Your task to perform on an android device: turn off javascript in the chrome app Image 0: 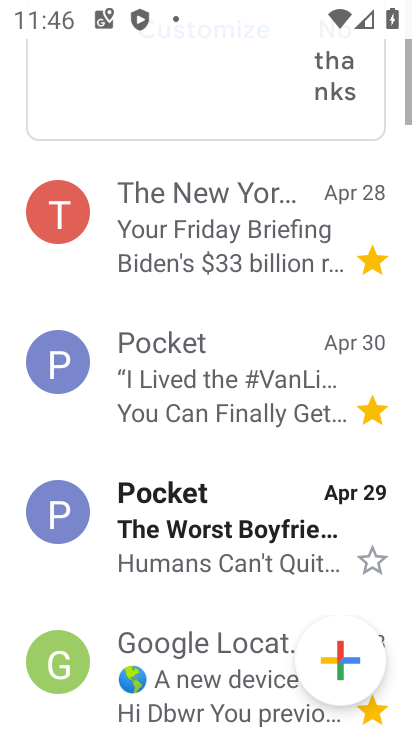
Step 0: press home button
Your task to perform on an android device: turn off javascript in the chrome app Image 1: 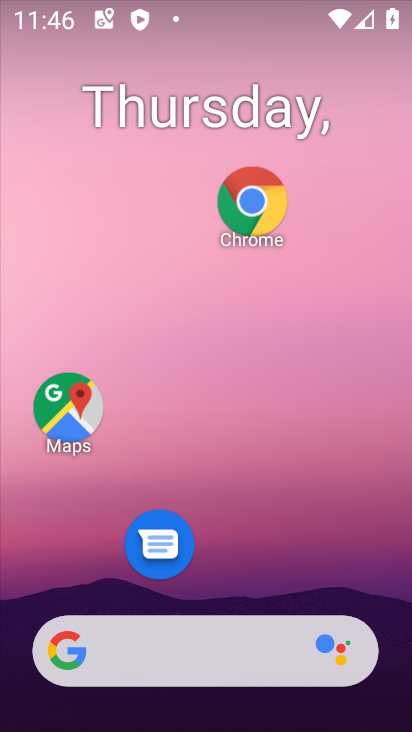
Step 1: click (251, 198)
Your task to perform on an android device: turn off javascript in the chrome app Image 2: 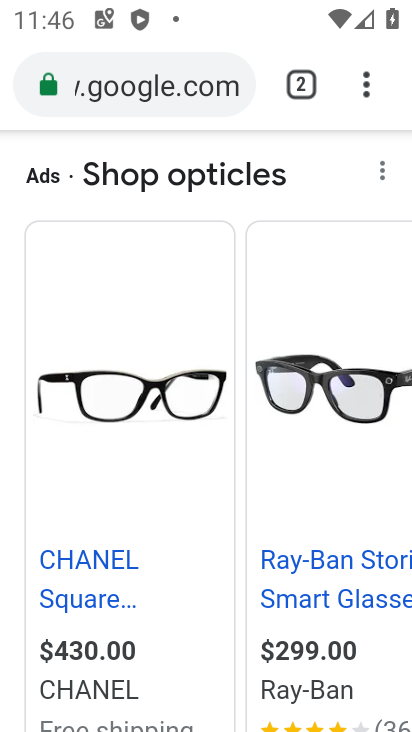
Step 2: click (369, 81)
Your task to perform on an android device: turn off javascript in the chrome app Image 3: 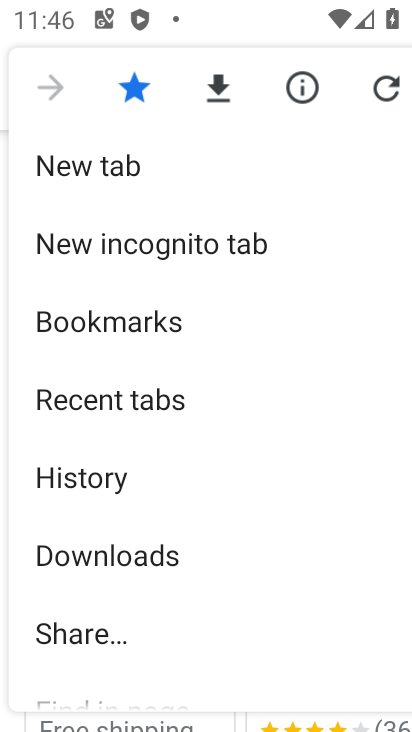
Step 3: drag from (182, 623) to (190, 116)
Your task to perform on an android device: turn off javascript in the chrome app Image 4: 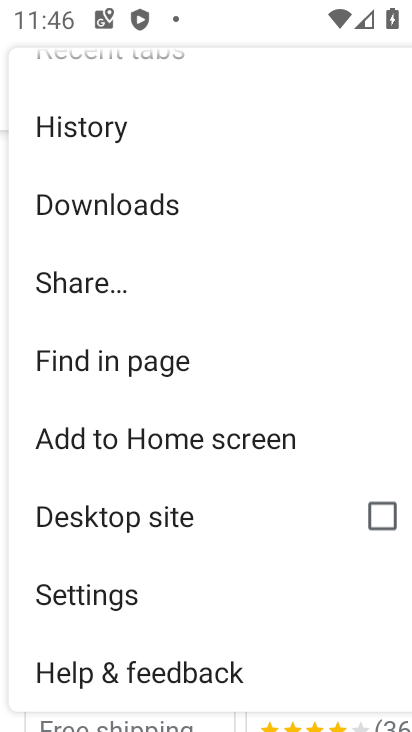
Step 4: click (151, 587)
Your task to perform on an android device: turn off javascript in the chrome app Image 5: 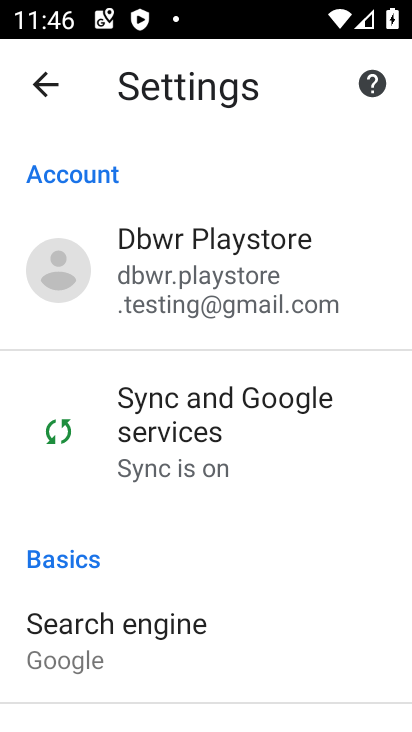
Step 5: drag from (245, 652) to (239, 177)
Your task to perform on an android device: turn off javascript in the chrome app Image 6: 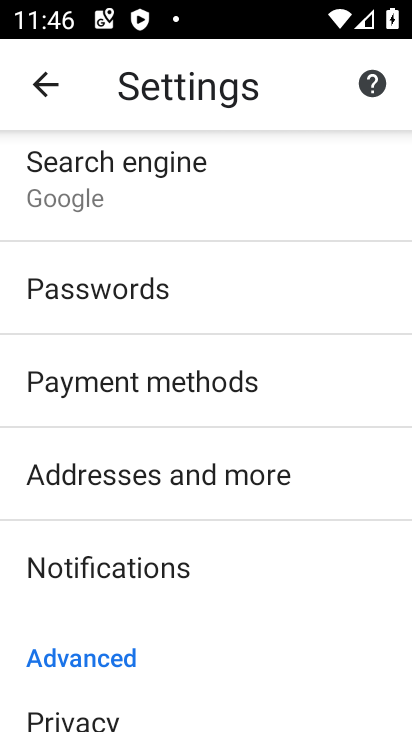
Step 6: drag from (211, 660) to (194, 135)
Your task to perform on an android device: turn off javascript in the chrome app Image 7: 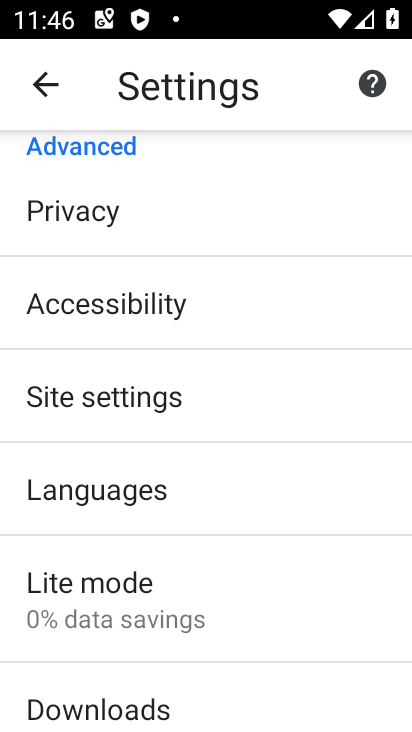
Step 7: click (199, 399)
Your task to perform on an android device: turn off javascript in the chrome app Image 8: 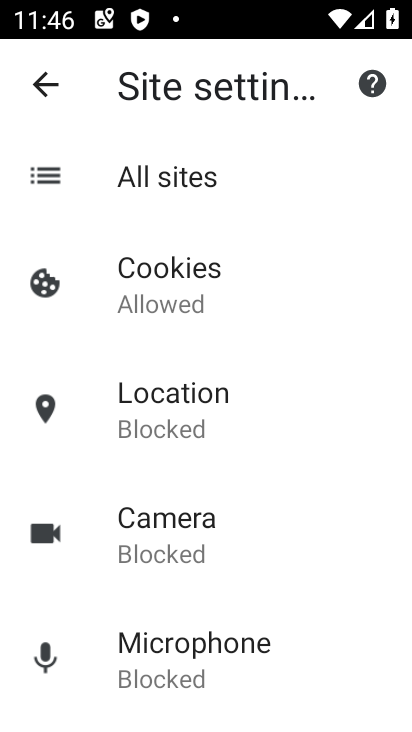
Step 8: drag from (241, 600) to (250, 256)
Your task to perform on an android device: turn off javascript in the chrome app Image 9: 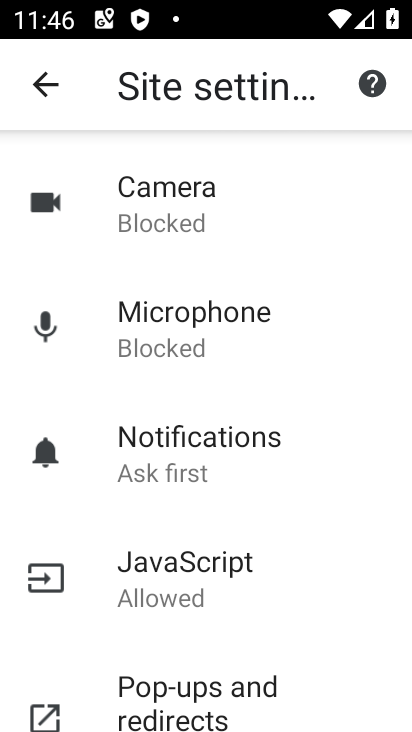
Step 9: click (219, 587)
Your task to perform on an android device: turn off javascript in the chrome app Image 10: 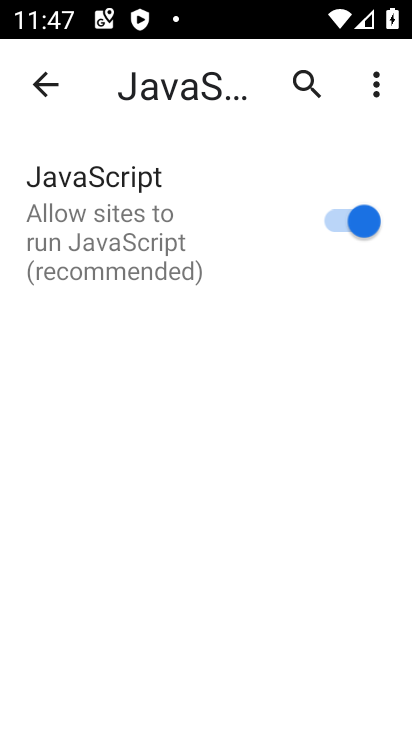
Step 10: click (337, 211)
Your task to perform on an android device: turn off javascript in the chrome app Image 11: 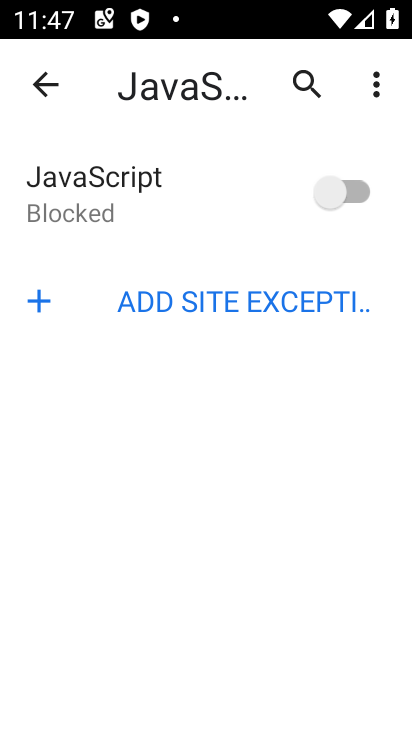
Step 11: task complete